Your task to perform on an android device: open chrome privacy settings Image 0: 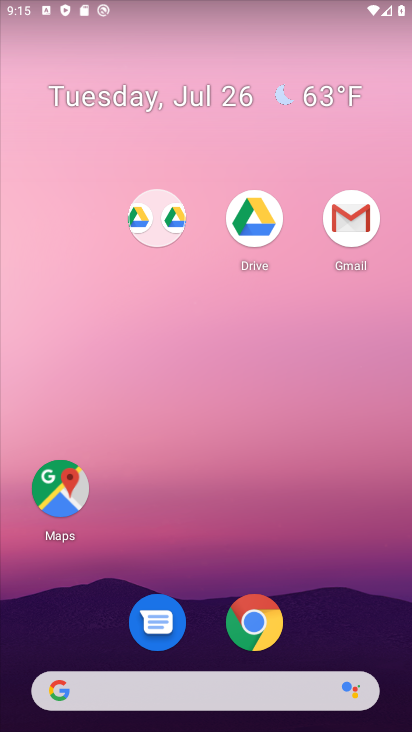
Step 0: click (236, 617)
Your task to perform on an android device: open chrome privacy settings Image 1: 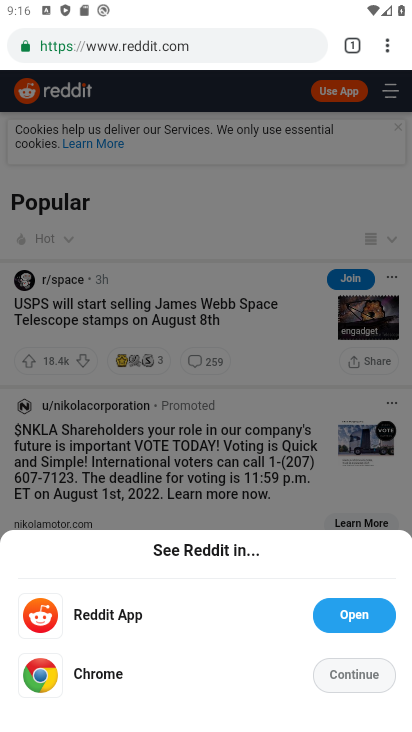
Step 1: click (105, 666)
Your task to perform on an android device: open chrome privacy settings Image 2: 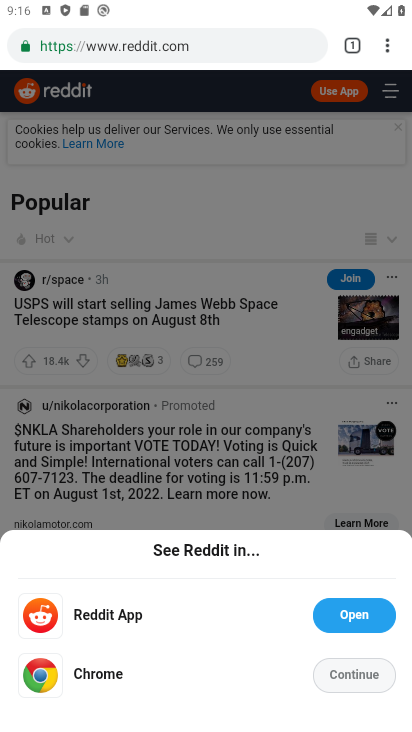
Step 2: click (344, 673)
Your task to perform on an android device: open chrome privacy settings Image 3: 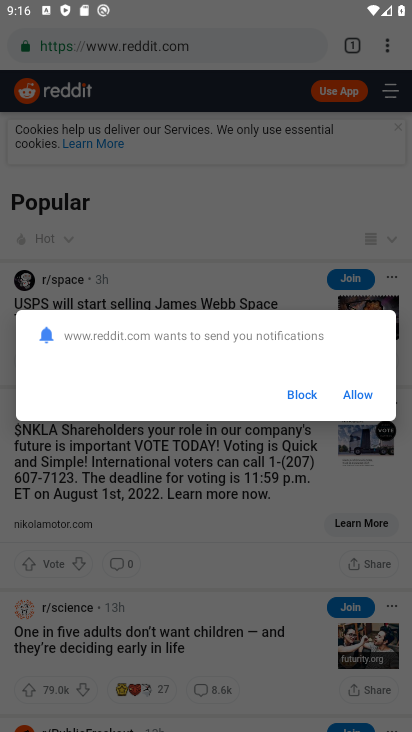
Step 3: click (354, 393)
Your task to perform on an android device: open chrome privacy settings Image 4: 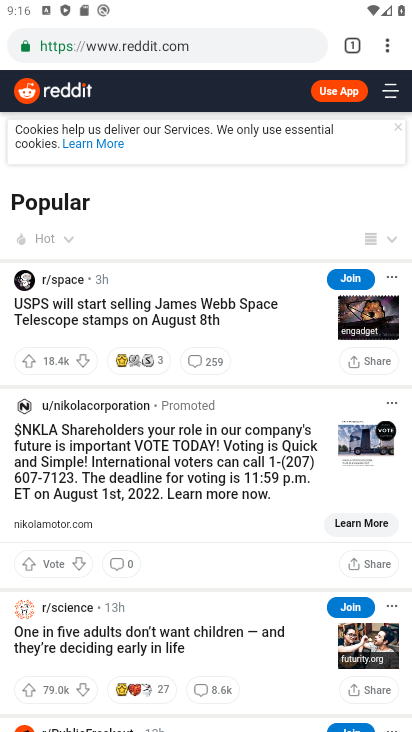
Step 4: click (395, 45)
Your task to perform on an android device: open chrome privacy settings Image 5: 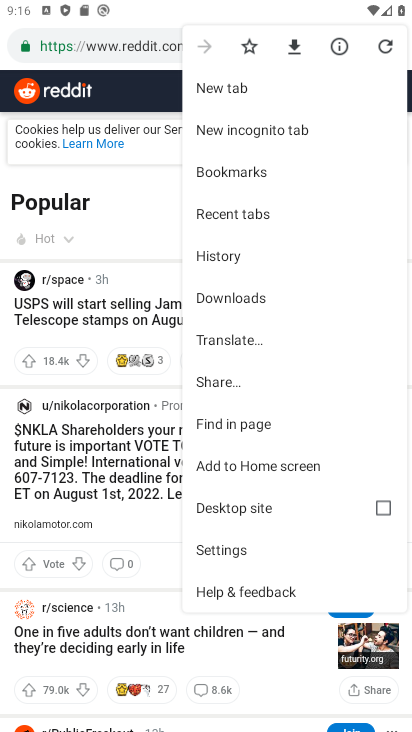
Step 5: click (241, 545)
Your task to perform on an android device: open chrome privacy settings Image 6: 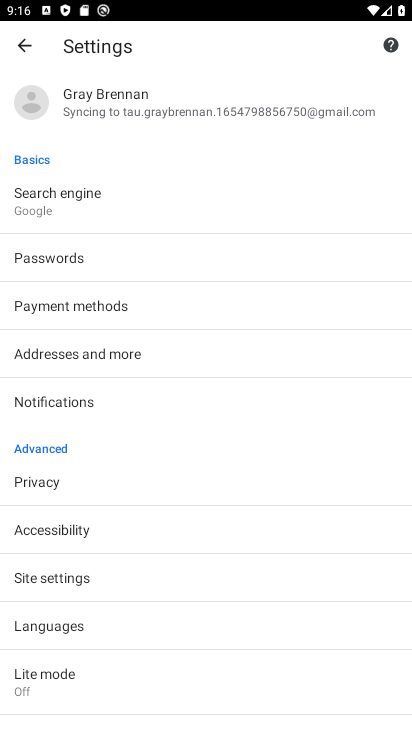
Step 6: task complete